Your task to perform on an android device: turn on location history Image 0: 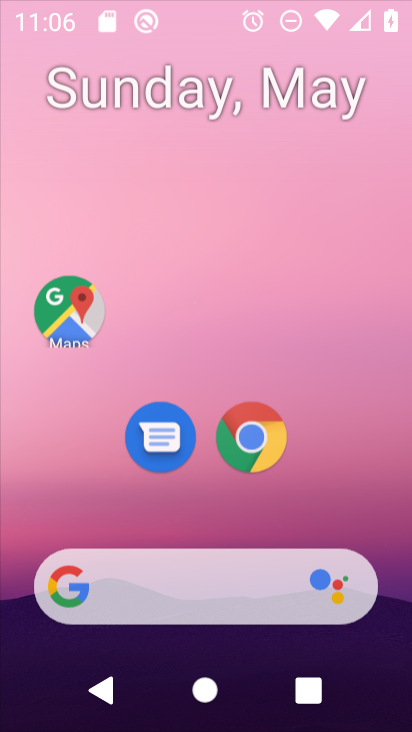
Step 0: drag from (250, 605) to (294, 109)
Your task to perform on an android device: turn on location history Image 1: 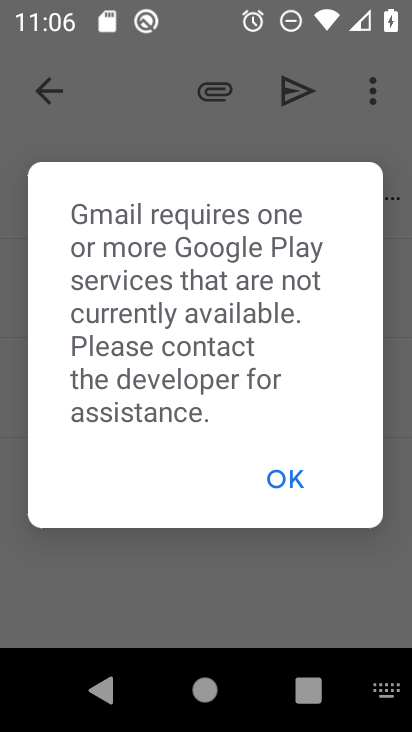
Step 1: press home button
Your task to perform on an android device: turn on location history Image 2: 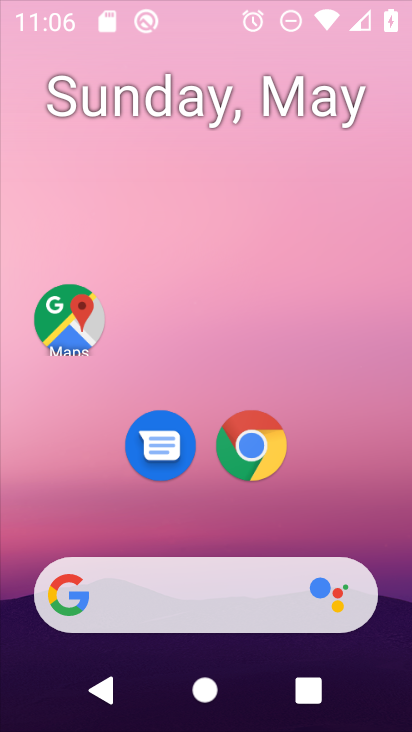
Step 2: drag from (243, 615) to (253, 182)
Your task to perform on an android device: turn on location history Image 3: 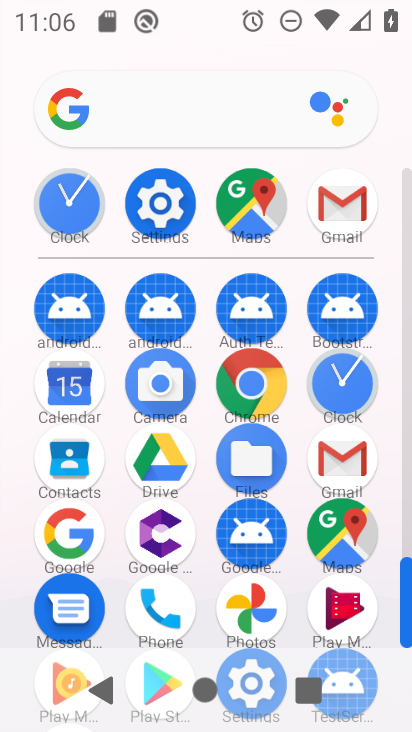
Step 3: click (158, 209)
Your task to perform on an android device: turn on location history Image 4: 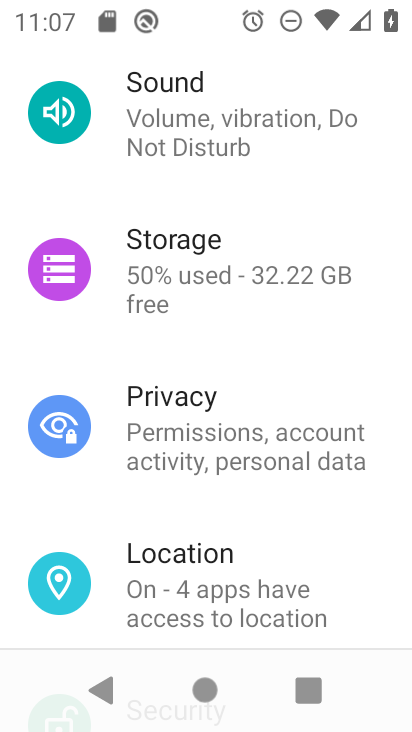
Step 4: click (194, 571)
Your task to perform on an android device: turn on location history Image 5: 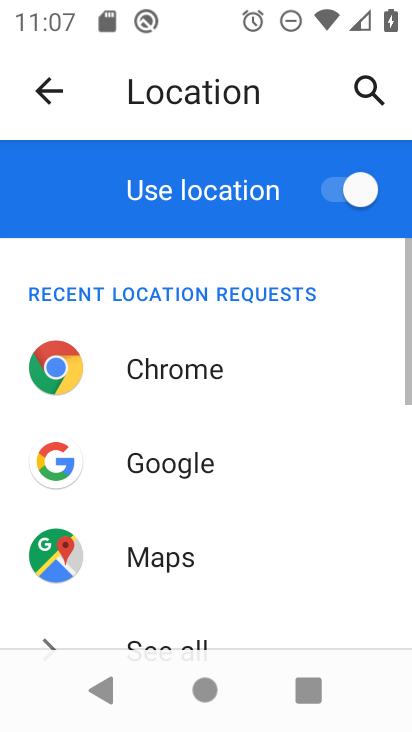
Step 5: drag from (197, 499) to (172, 222)
Your task to perform on an android device: turn on location history Image 6: 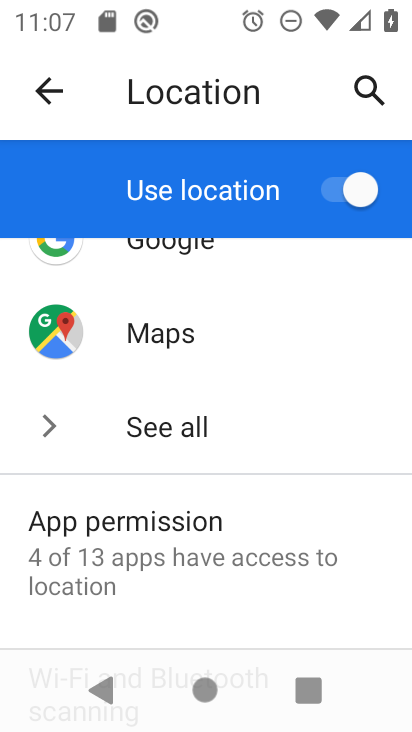
Step 6: drag from (162, 523) to (159, 2)
Your task to perform on an android device: turn on location history Image 7: 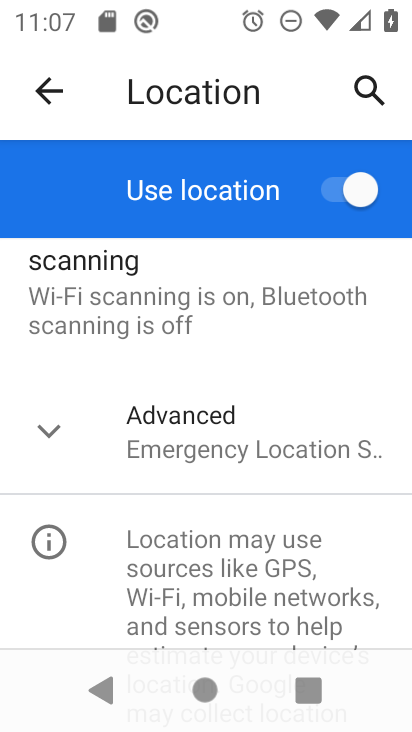
Step 7: click (160, 429)
Your task to perform on an android device: turn on location history Image 8: 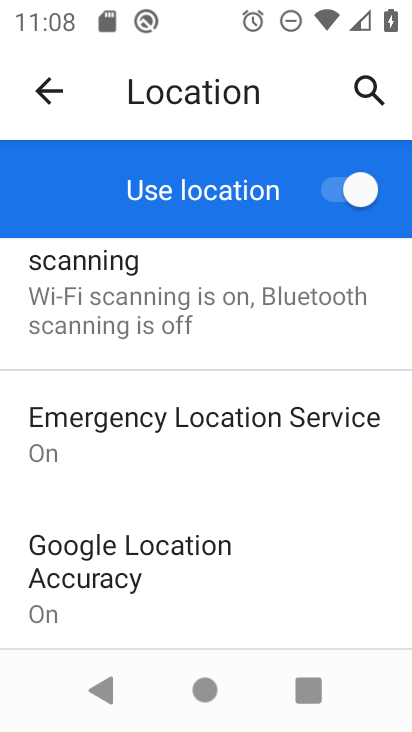
Step 8: drag from (133, 515) to (175, 232)
Your task to perform on an android device: turn on location history Image 9: 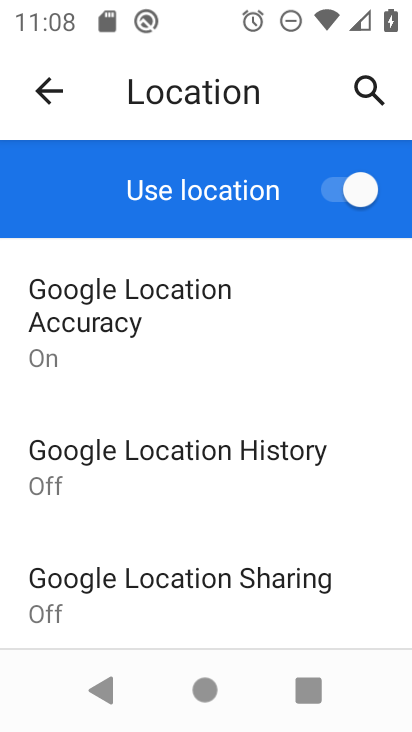
Step 9: click (220, 462)
Your task to perform on an android device: turn on location history Image 10: 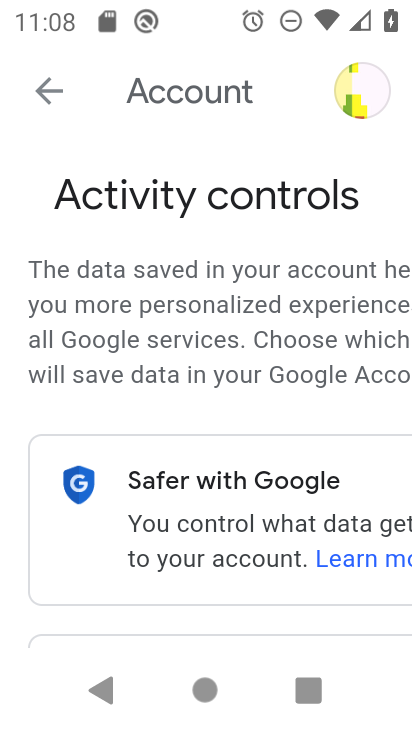
Step 10: drag from (270, 542) to (67, 169)
Your task to perform on an android device: turn on location history Image 11: 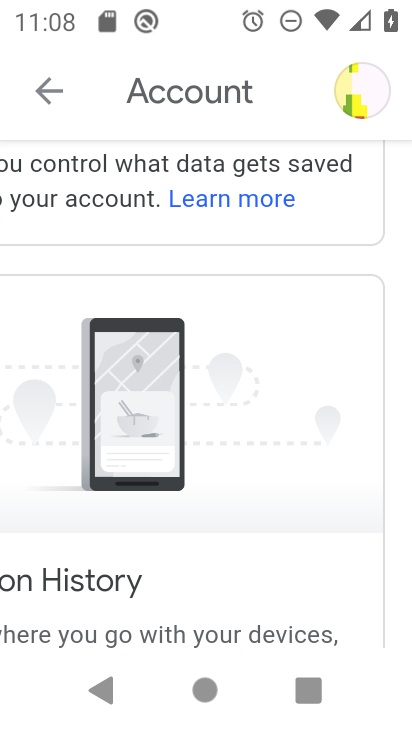
Step 11: drag from (269, 507) to (182, 122)
Your task to perform on an android device: turn on location history Image 12: 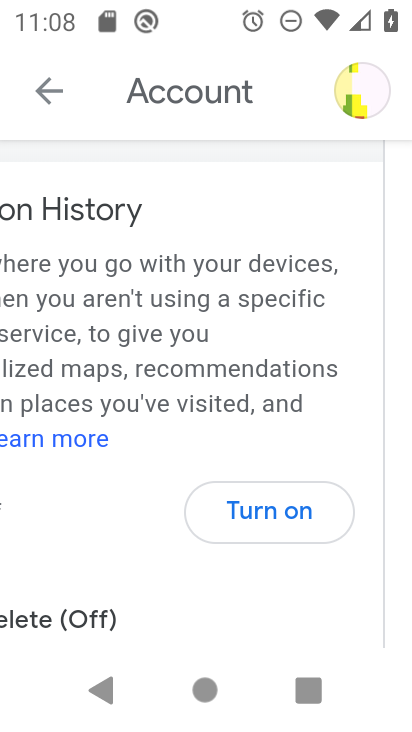
Step 12: click (283, 508)
Your task to perform on an android device: turn on location history Image 13: 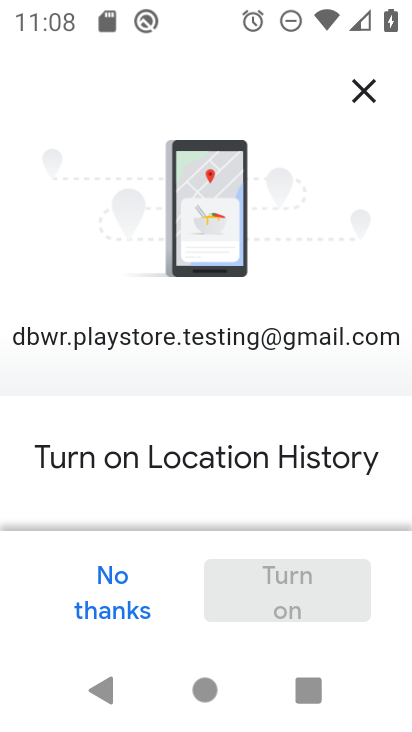
Step 13: drag from (316, 440) to (261, 1)
Your task to perform on an android device: turn on location history Image 14: 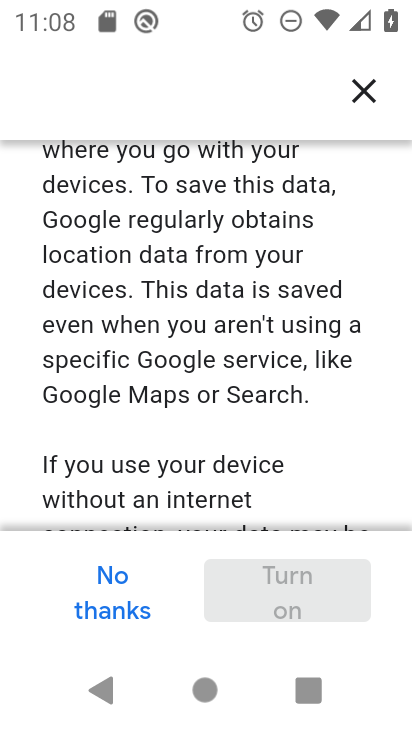
Step 14: drag from (263, 298) to (269, 0)
Your task to perform on an android device: turn on location history Image 15: 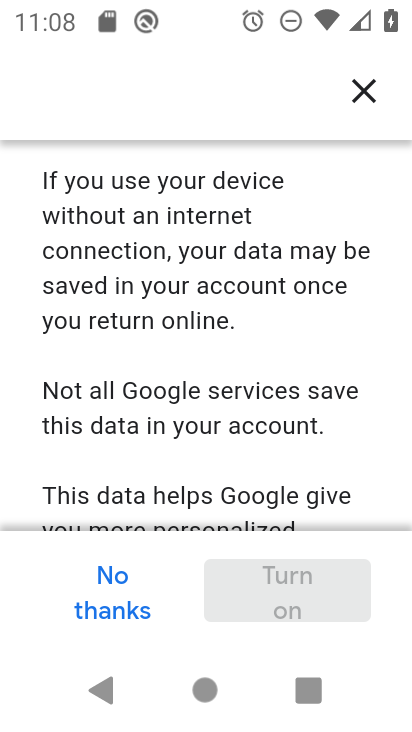
Step 15: drag from (277, 412) to (215, 0)
Your task to perform on an android device: turn on location history Image 16: 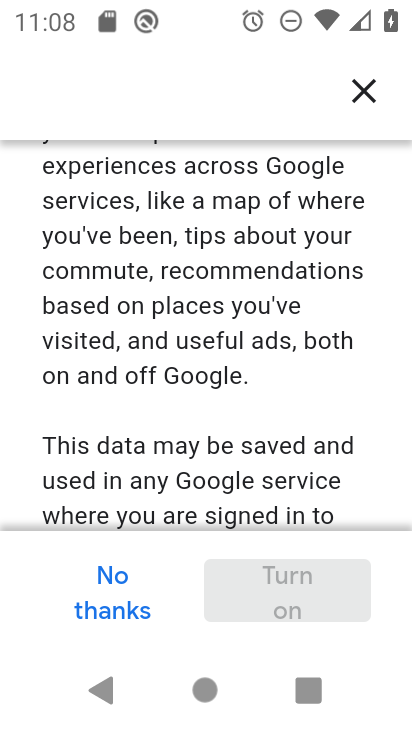
Step 16: drag from (238, 421) to (233, 7)
Your task to perform on an android device: turn on location history Image 17: 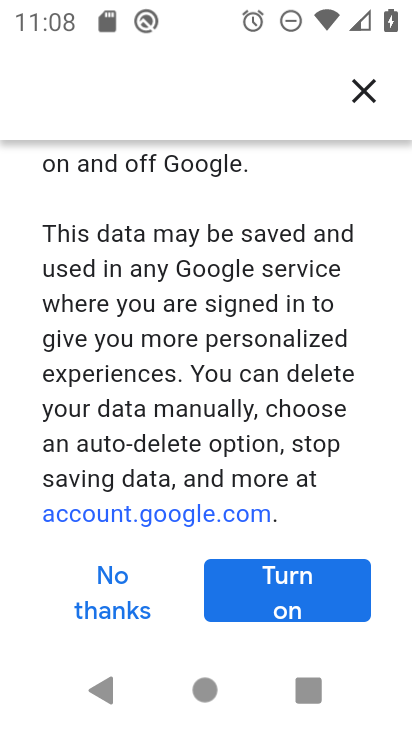
Step 17: click (324, 603)
Your task to perform on an android device: turn on location history Image 18: 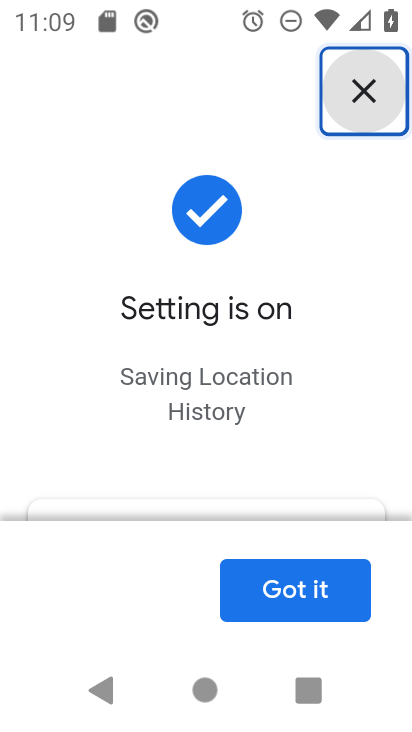
Step 18: click (329, 596)
Your task to perform on an android device: turn on location history Image 19: 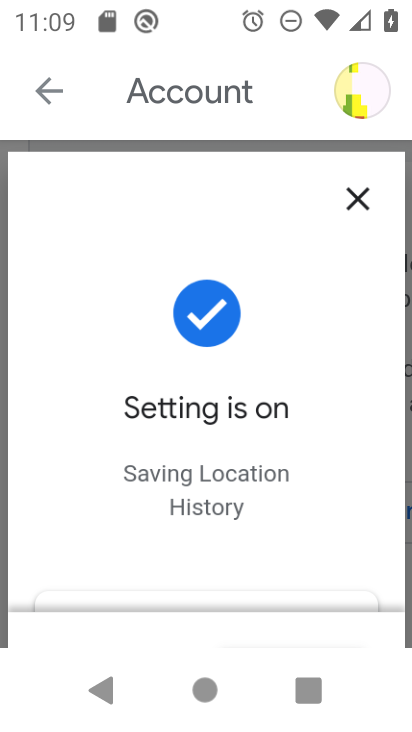
Step 19: task complete